Your task to perform on an android device: change the clock style Image 0: 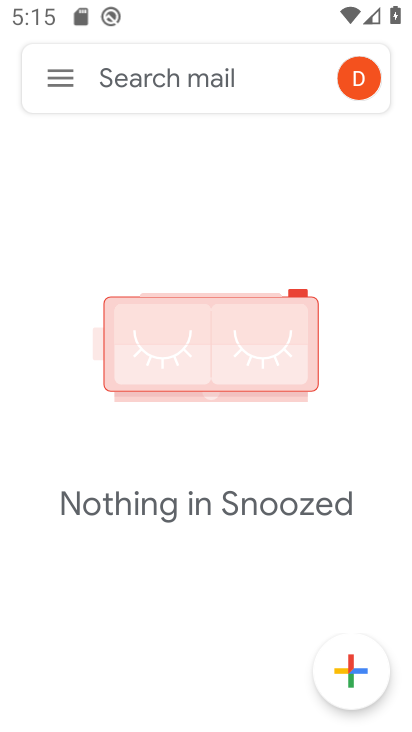
Step 0: press home button
Your task to perform on an android device: change the clock style Image 1: 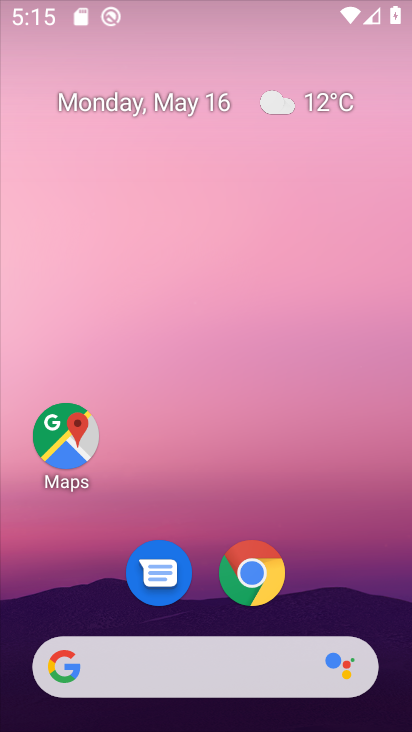
Step 1: drag from (229, 453) to (311, 19)
Your task to perform on an android device: change the clock style Image 2: 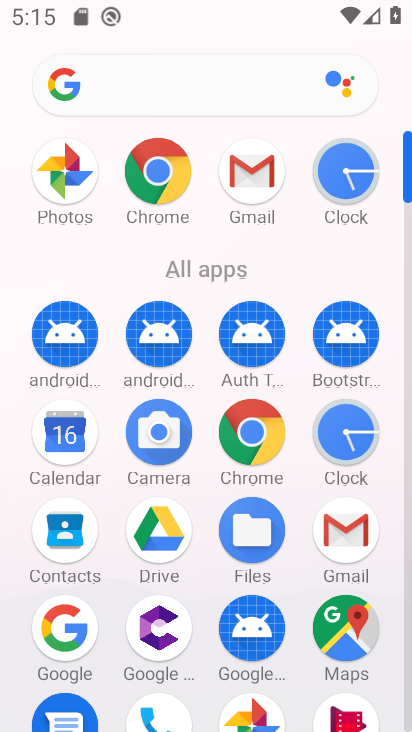
Step 2: click (344, 454)
Your task to perform on an android device: change the clock style Image 3: 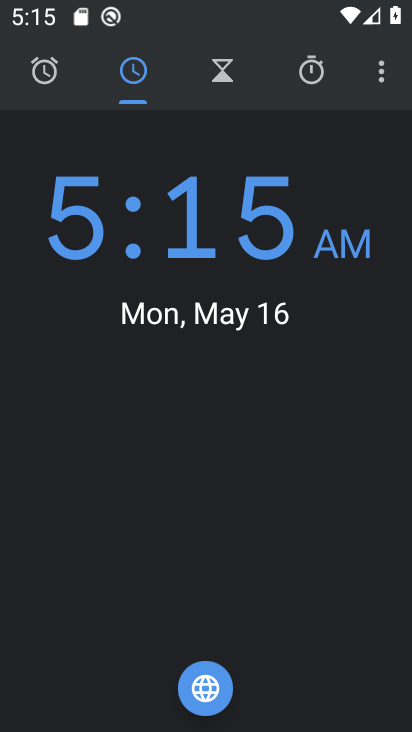
Step 3: click (381, 73)
Your task to perform on an android device: change the clock style Image 4: 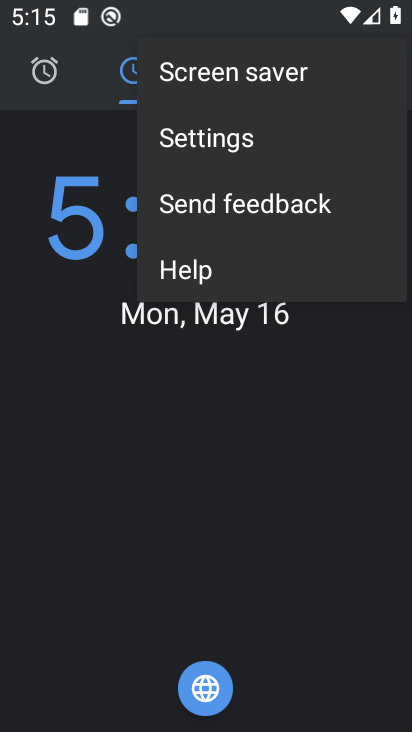
Step 4: click (270, 135)
Your task to perform on an android device: change the clock style Image 5: 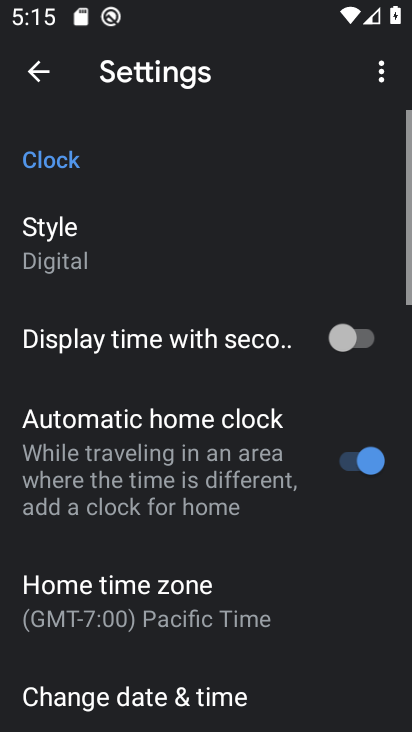
Step 5: click (72, 247)
Your task to perform on an android device: change the clock style Image 6: 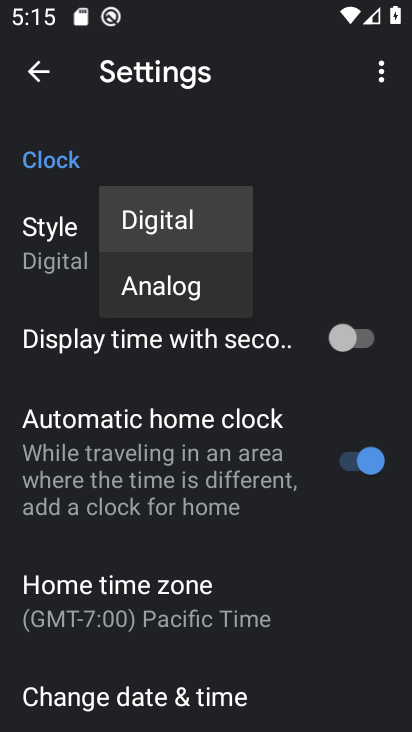
Step 6: click (144, 293)
Your task to perform on an android device: change the clock style Image 7: 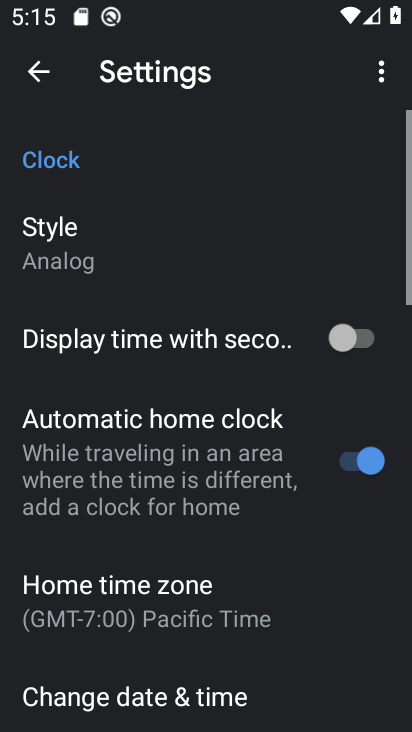
Step 7: task complete